Your task to perform on an android device: turn on javascript in the chrome app Image 0: 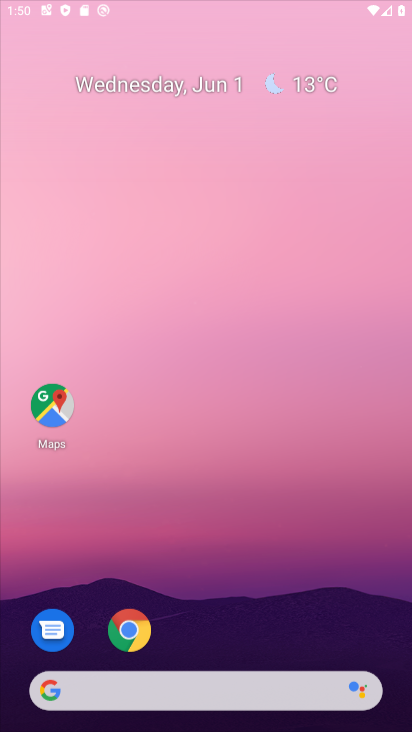
Step 0: press home button
Your task to perform on an android device: turn on javascript in the chrome app Image 1: 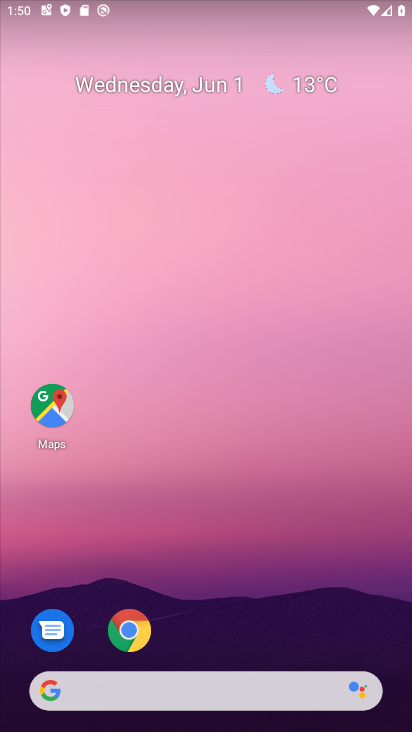
Step 1: click (127, 620)
Your task to perform on an android device: turn on javascript in the chrome app Image 2: 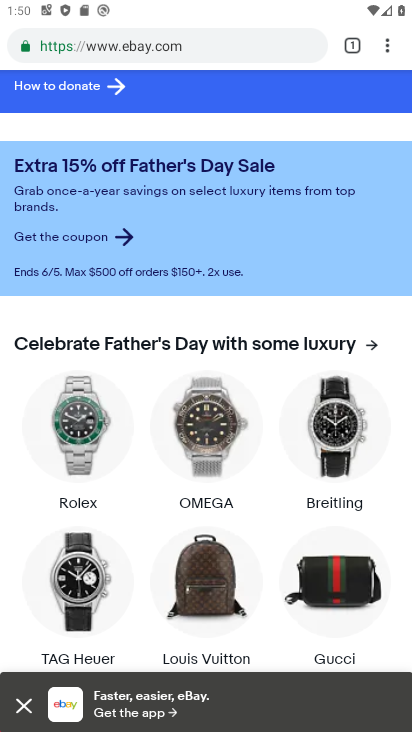
Step 2: click (383, 48)
Your task to perform on an android device: turn on javascript in the chrome app Image 3: 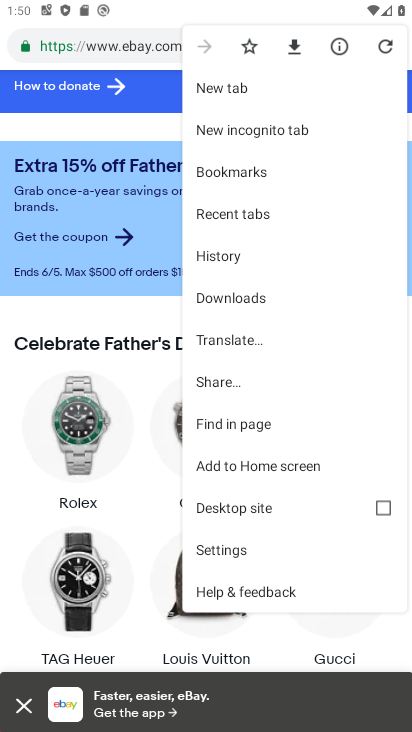
Step 3: click (248, 545)
Your task to perform on an android device: turn on javascript in the chrome app Image 4: 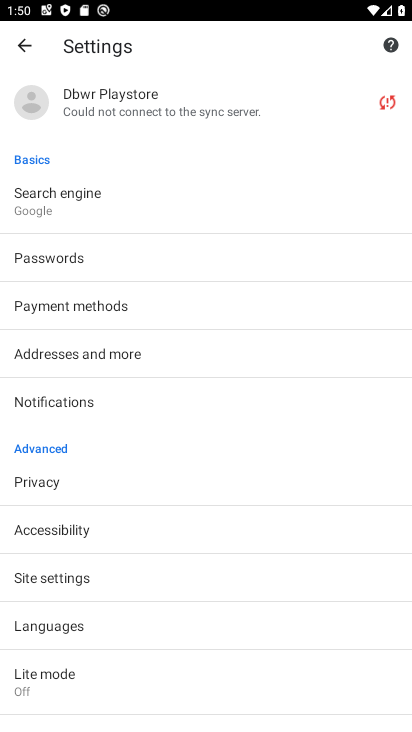
Step 4: click (100, 566)
Your task to perform on an android device: turn on javascript in the chrome app Image 5: 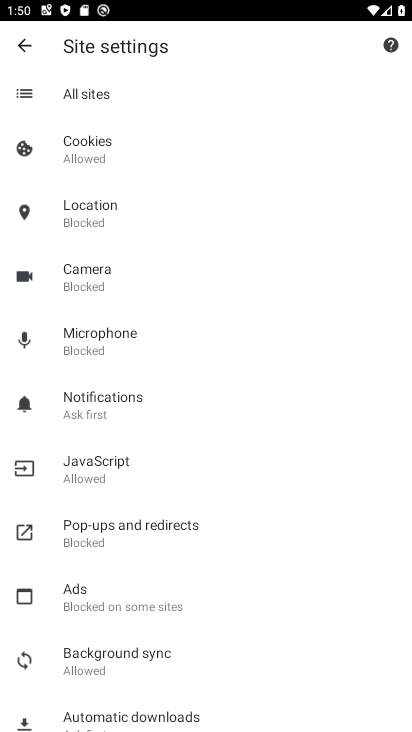
Step 5: click (137, 466)
Your task to perform on an android device: turn on javascript in the chrome app Image 6: 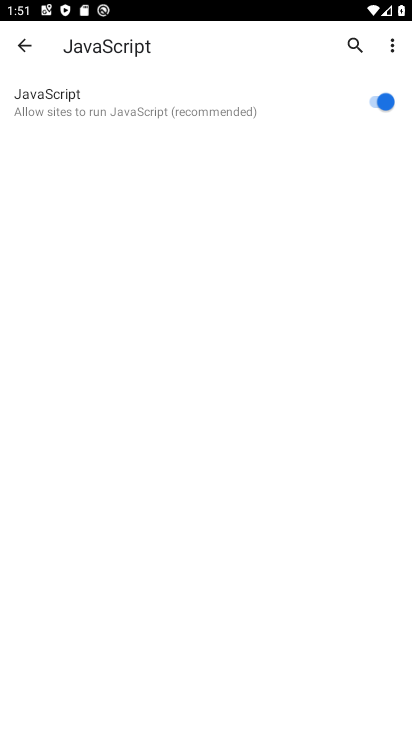
Step 6: task complete